Your task to perform on an android device: Open my contact list Image 0: 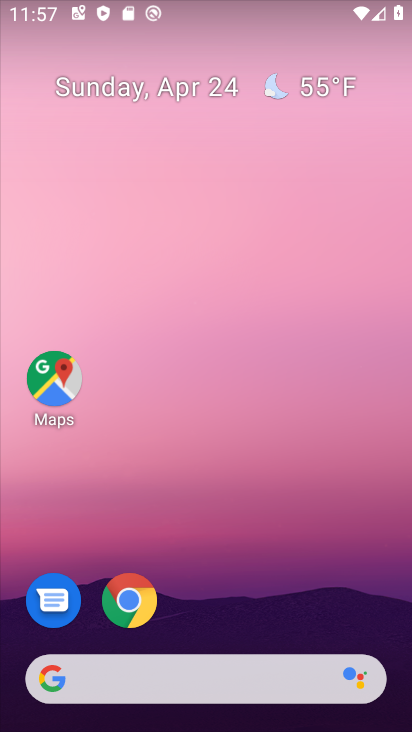
Step 0: drag from (206, 596) to (188, 114)
Your task to perform on an android device: Open my contact list Image 1: 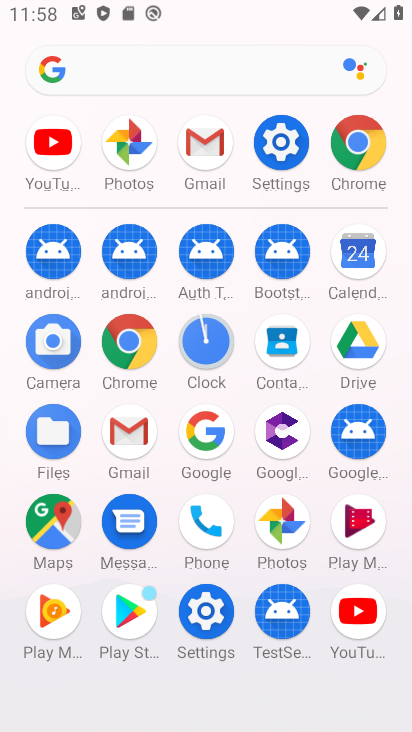
Step 1: click (283, 334)
Your task to perform on an android device: Open my contact list Image 2: 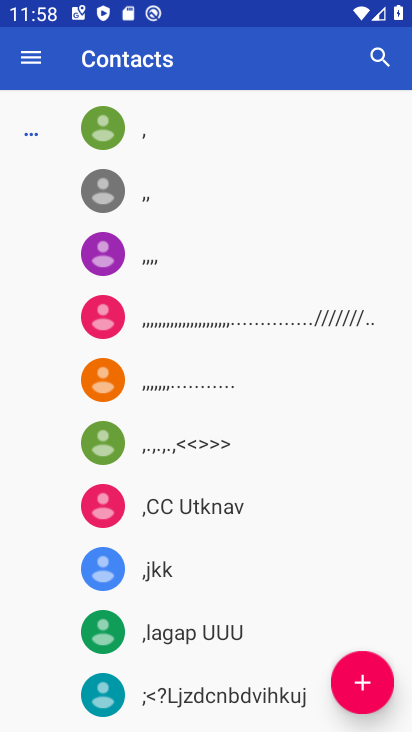
Step 2: task complete